Your task to perform on an android device: move an email to a new category in the gmail app Image 0: 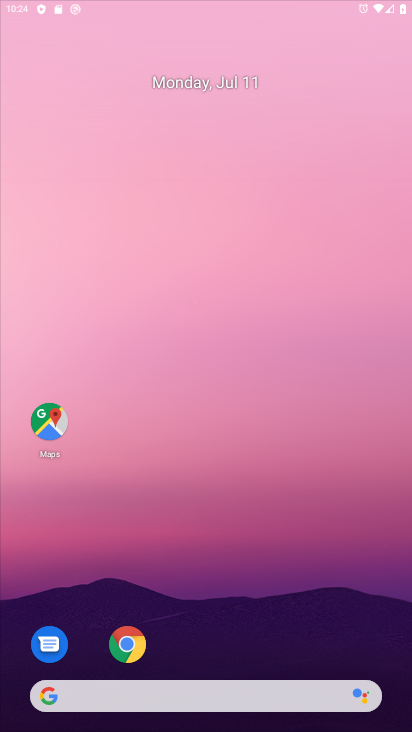
Step 0: press home button
Your task to perform on an android device: move an email to a new category in the gmail app Image 1: 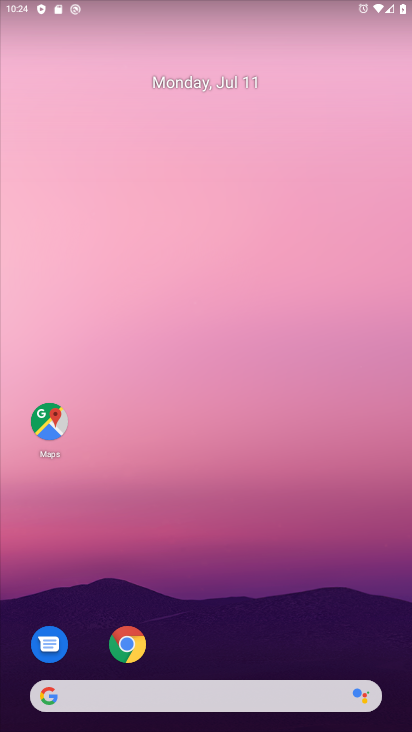
Step 1: drag from (258, 533) to (281, 375)
Your task to perform on an android device: move an email to a new category in the gmail app Image 2: 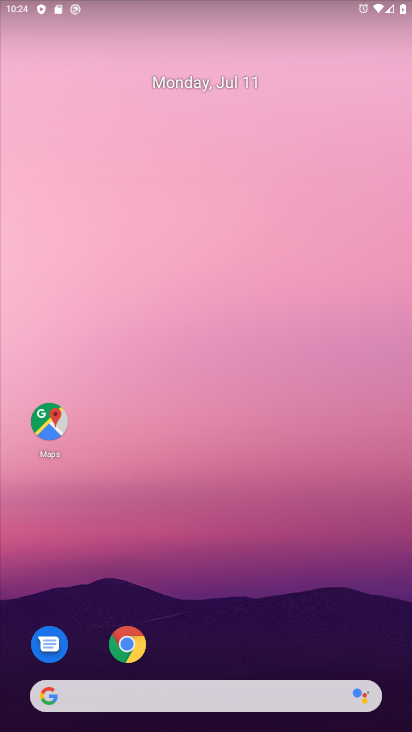
Step 2: drag from (207, 662) to (235, 416)
Your task to perform on an android device: move an email to a new category in the gmail app Image 3: 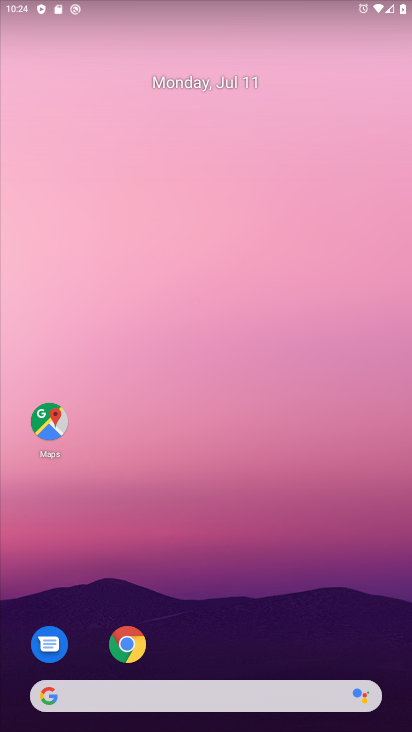
Step 3: drag from (302, 671) to (318, 158)
Your task to perform on an android device: move an email to a new category in the gmail app Image 4: 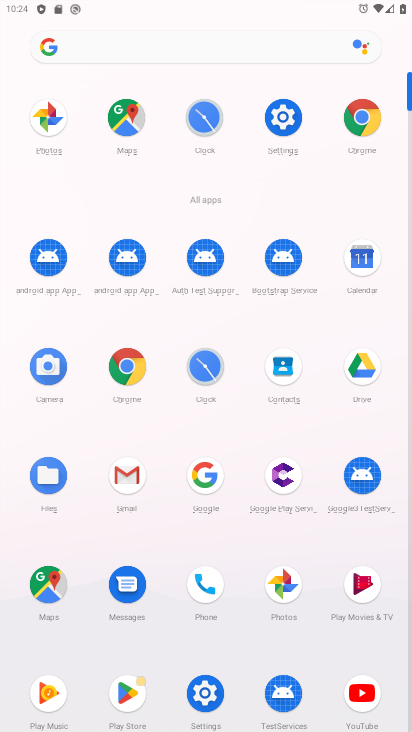
Step 4: click (119, 479)
Your task to perform on an android device: move an email to a new category in the gmail app Image 5: 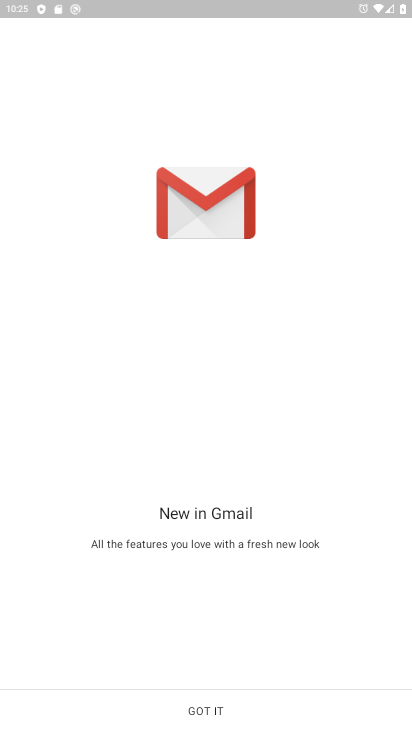
Step 5: click (139, 715)
Your task to perform on an android device: move an email to a new category in the gmail app Image 6: 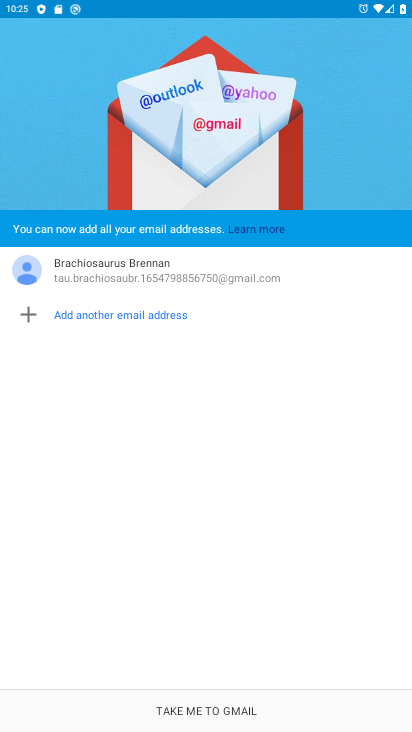
Step 6: click (139, 715)
Your task to perform on an android device: move an email to a new category in the gmail app Image 7: 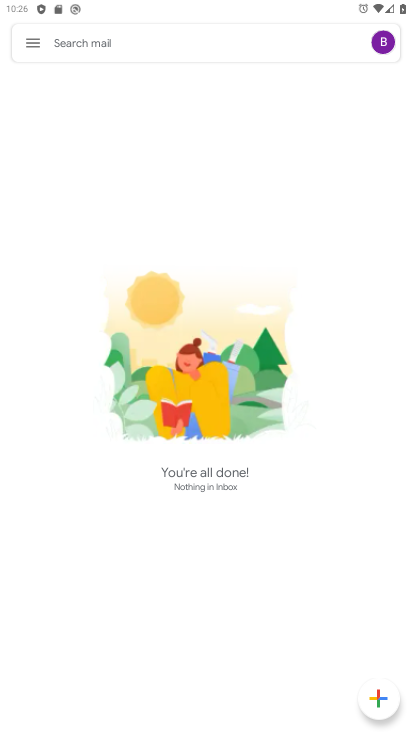
Step 7: task complete